Your task to perform on an android device: change alarm snooze length Image 0: 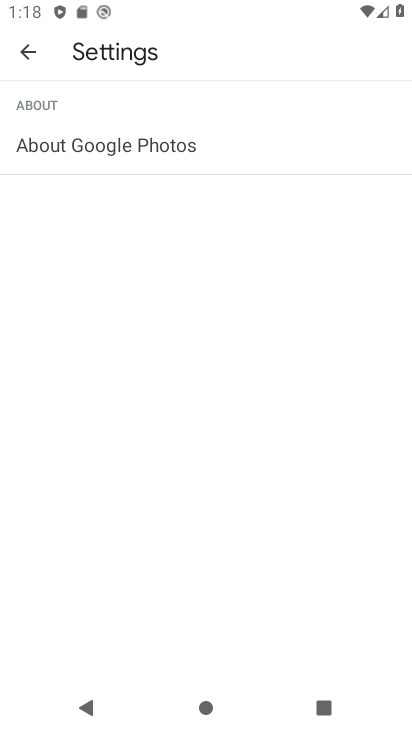
Step 0: press home button
Your task to perform on an android device: change alarm snooze length Image 1: 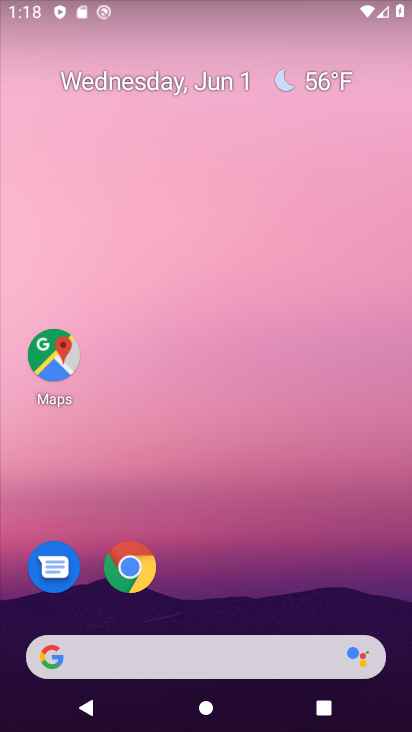
Step 1: drag from (206, 649) to (167, 31)
Your task to perform on an android device: change alarm snooze length Image 2: 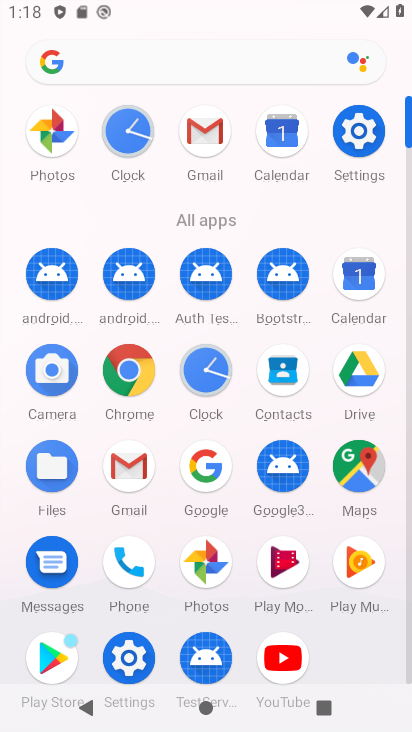
Step 2: click (197, 384)
Your task to perform on an android device: change alarm snooze length Image 3: 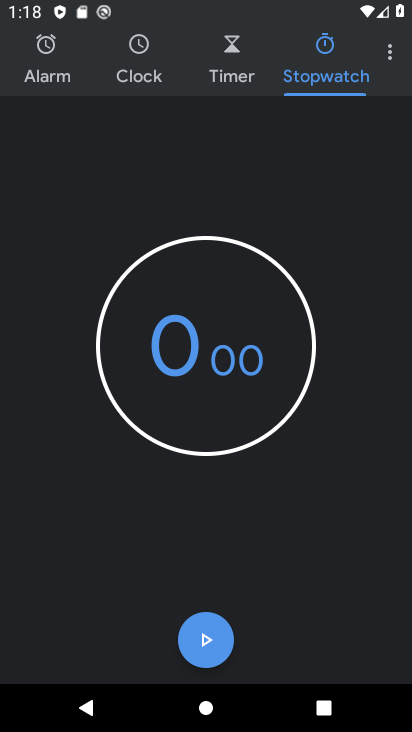
Step 3: click (393, 42)
Your task to perform on an android device: change alarm snooze length Image 4: 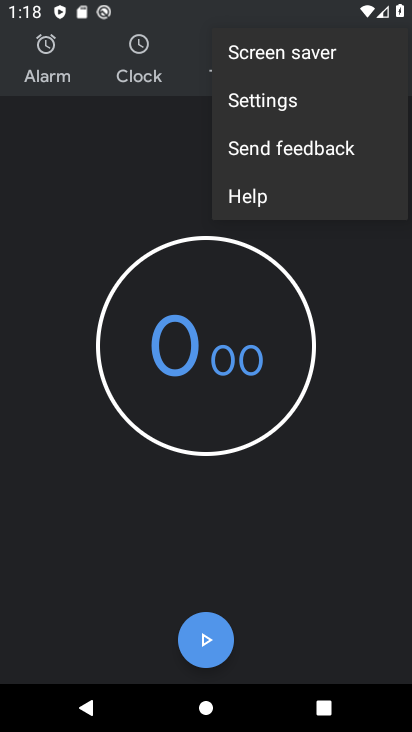
Step 4: click (286, 104)
Your task to perform on an android device: change alarm snooze length Image 5: 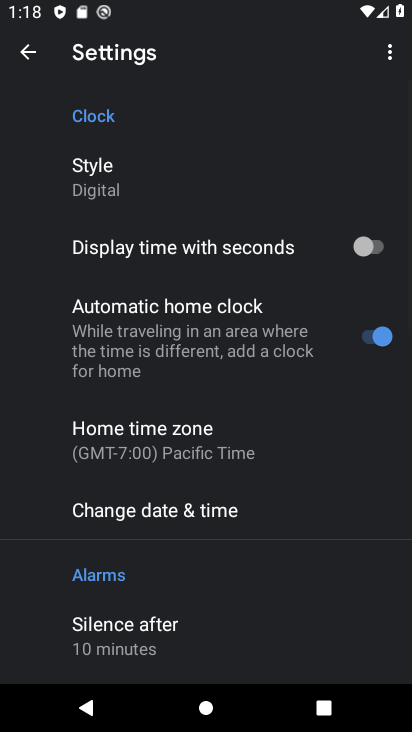
Step 5: drag from (230, 554) to (228, 177)
Your task to perform on an android device: change alarm snooze length Image 6: 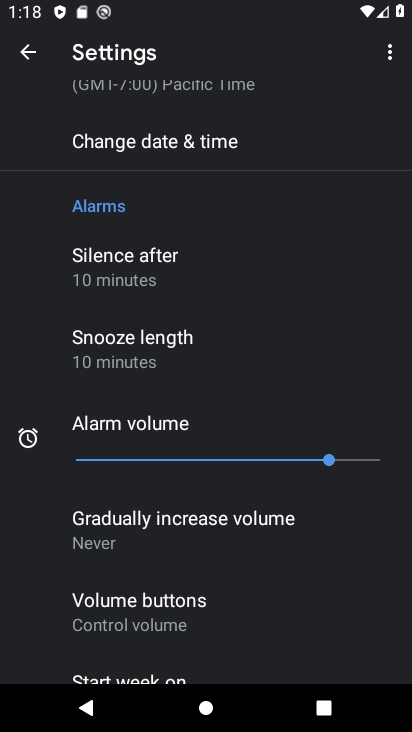
Step 6: click (152, 333)
Your task to perform on an android device: change alarm snooze length Image 7: 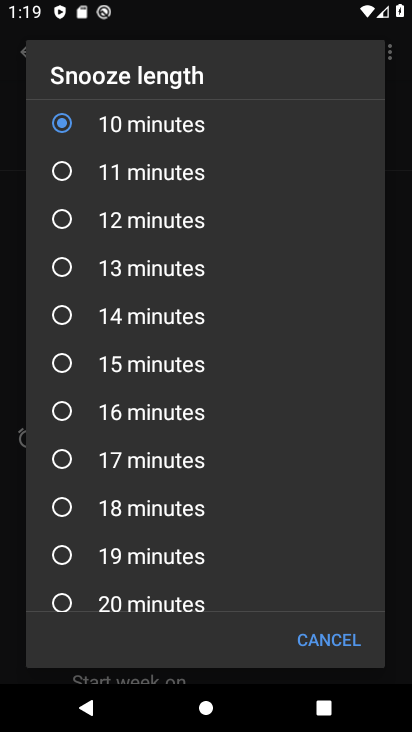
Step 7: click (135, 356)
Your task to perform on an android device: change alarm snooze length Image 8: 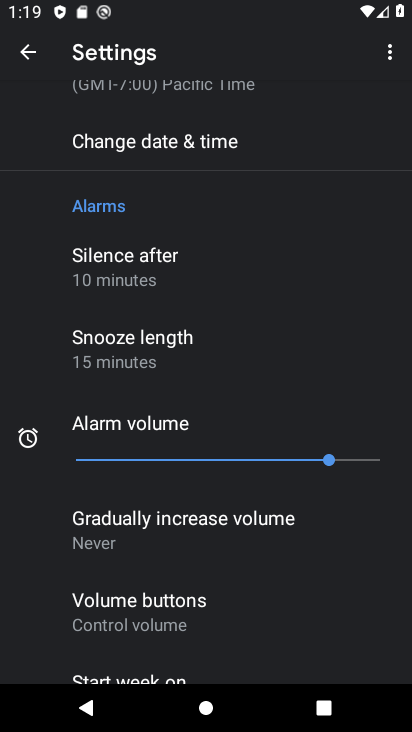
Step 8: task complete